Your task to perform on an android device: Open Yahoo.com Image 0: 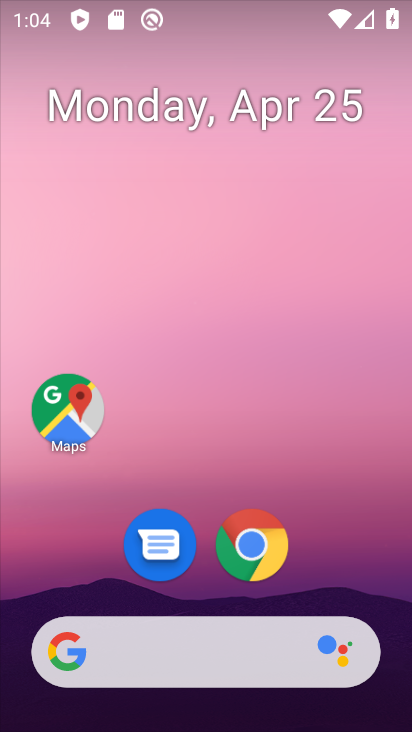
Step 0: click (250, 545)
Your task to perform on an android device: Open Yahoo.com Image 1: 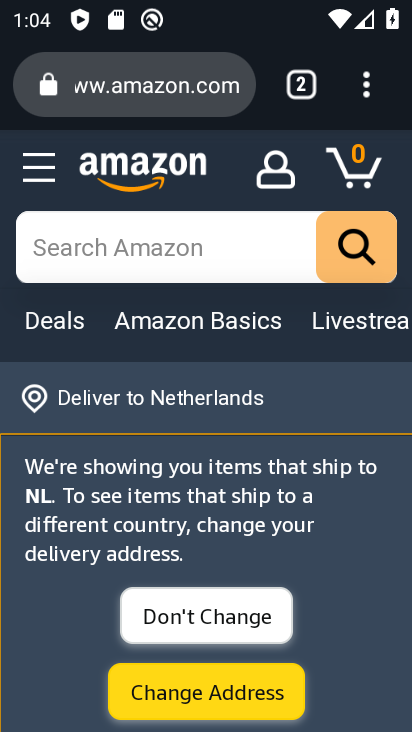
Step 1: click (301, 85)
Your task to perform on an android device: Open Yahoo.com Image 2: 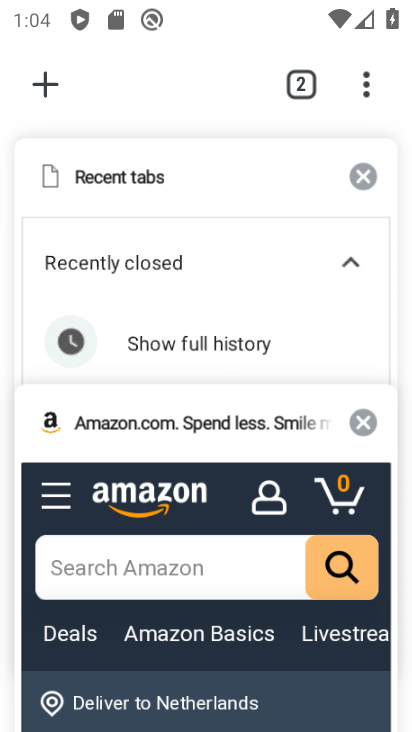
Step 2: click (42, 82)
Your task to perform on an android device: Open Yahoo.com Image 3: 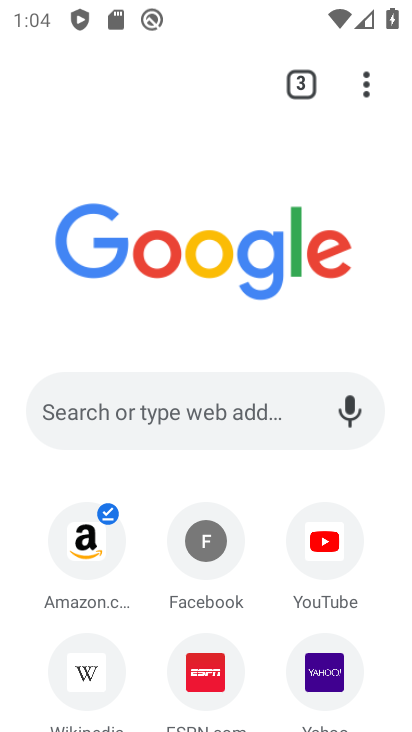
Step 3: click (334, 666)
Your task to perform on an android device: Open Yahoo.com Image 4: 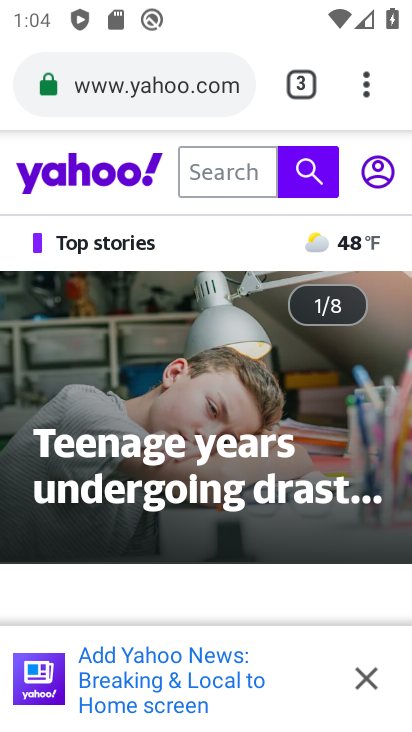
Step 4: task complete